Your task to perform on an android device: Open Wikipedia Image 0: 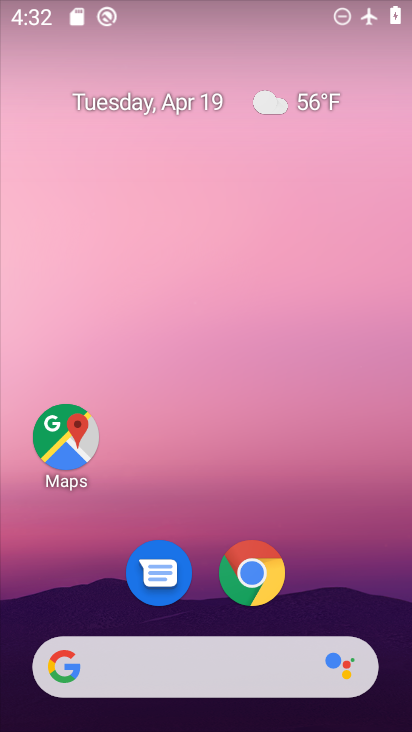
Step 0: click (262, 575)
Your task to perform on an android device: Open Wikipedia Image 1: 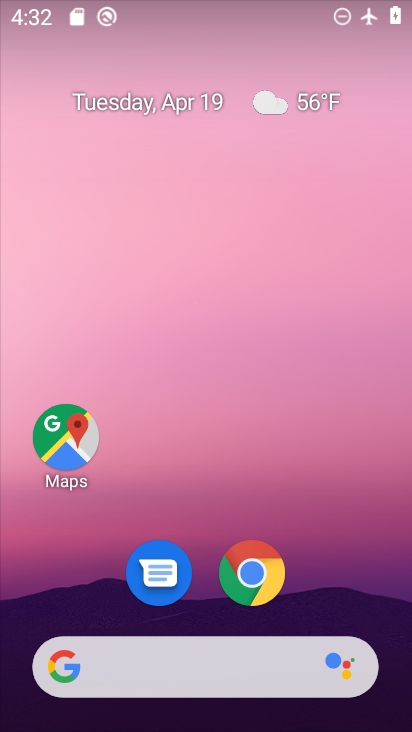
Step 1: click (262, 575)
Your task to perform on an android device: Open Wikipedia Image 2: 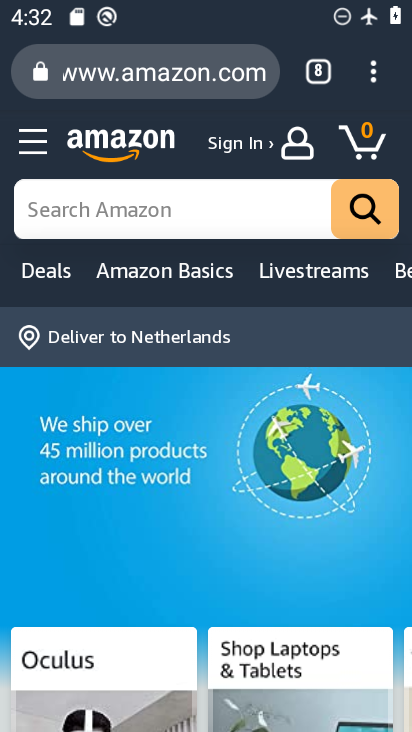
Step 2: click (372, 76)
Your task to perform on an android device: Open Wikipedia Image 3: 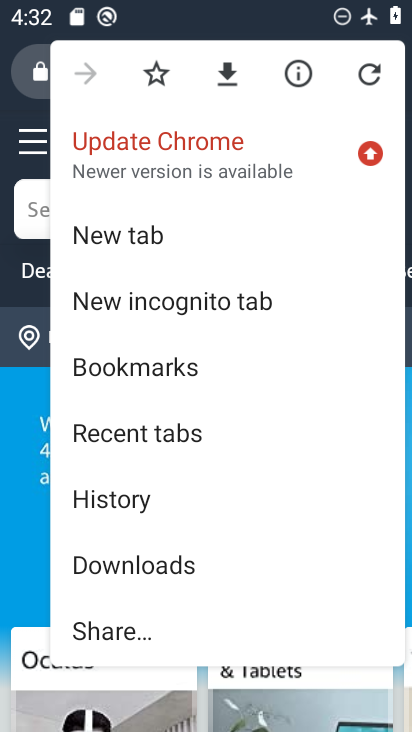
Step 3: click (136, 233)
Your task to perform on an android device: Open Wikipedia Image 4: 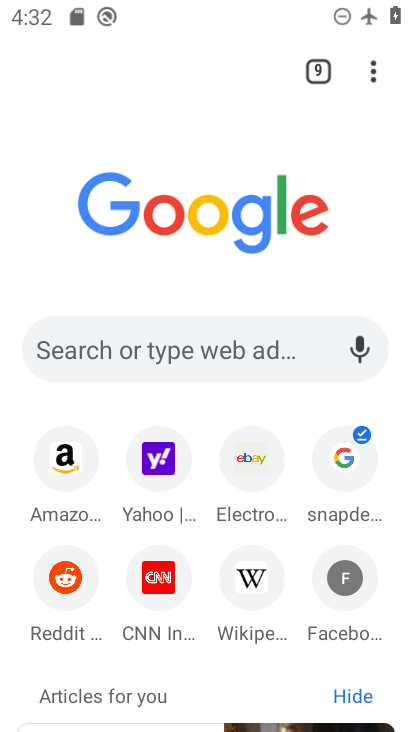
Step 4: click (243, 575)
Your task to perform on an android device: Open Wikipedia Image 5: 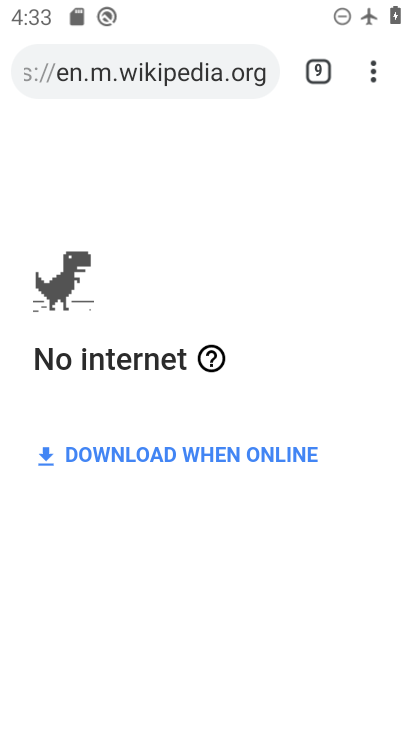
Step 5: task complete